Your task to perform on an android device: toggle priority inbox in the gmail app Image 0: 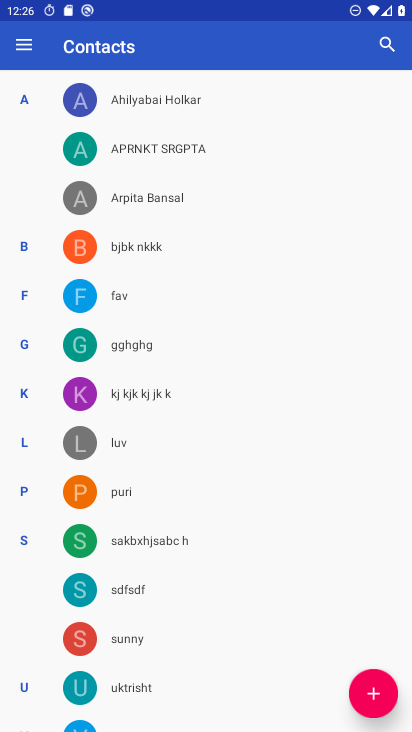
Step 0: press home button
Your task to perform on an android device: toggle priority inbox in the gmail app Image 1: 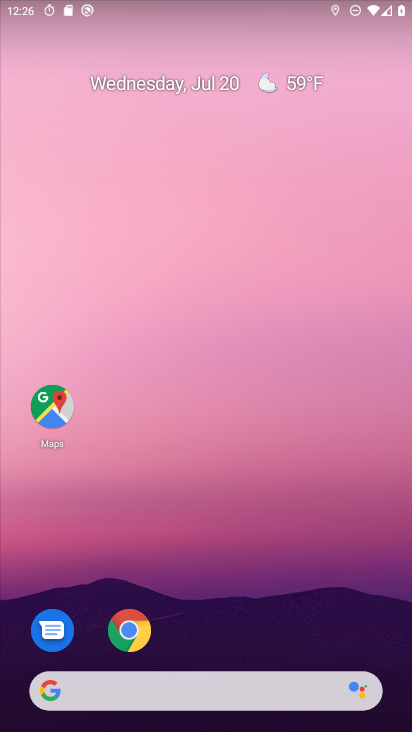
Step 1: drag from (273, 688) to (320, 50)
Your task to perform on an android device: toggle priority inbox in the gmail app Image 2: 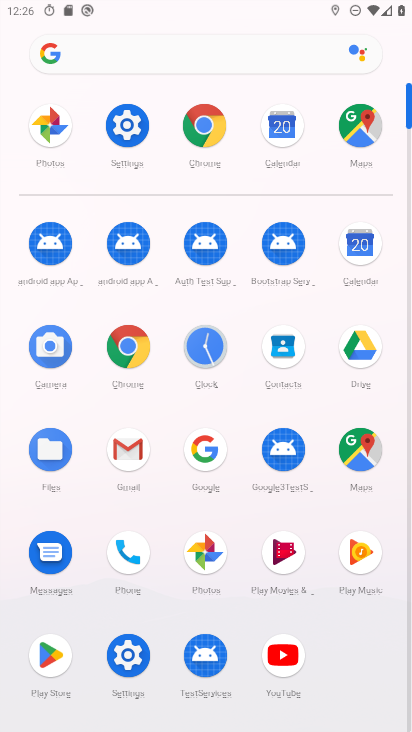
Step 2: click (115, 443)
Your task to perform on an android device: toggle priority inbox in the gmail app Image 3: 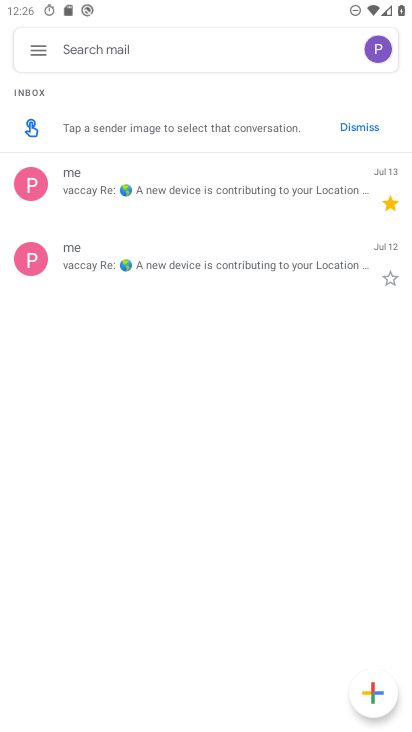
Step 3: click (37, 50)
Your task to perform on an android device: toggle priority inbox in the gmail app Image 4: 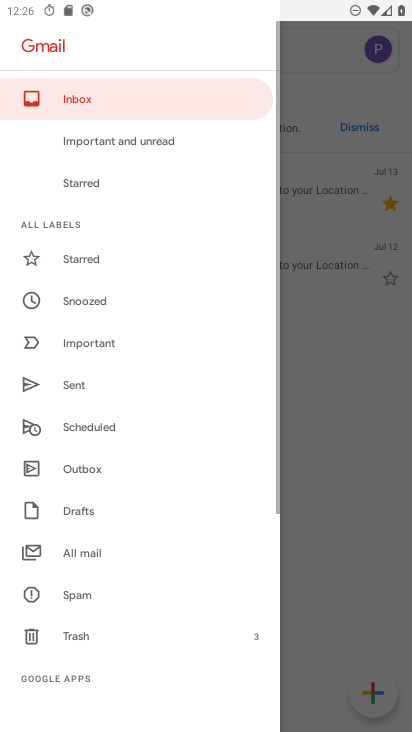
Step 4: drag from (122, 670) to (134, 181)
Your task to perform on an android device: toggle priority inbox in the gmail app Image 5: 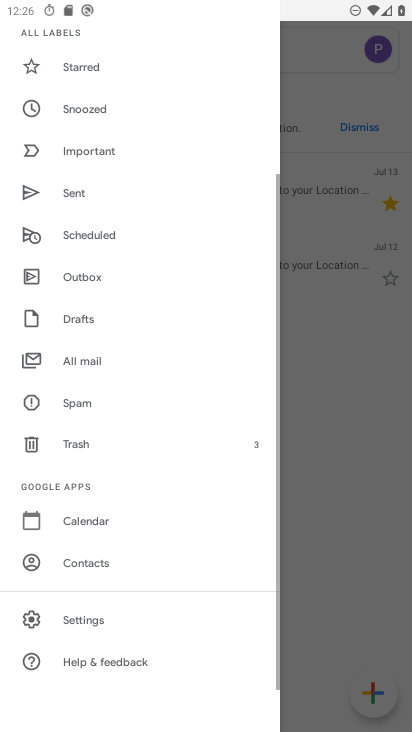
Step 5: click (125, 620)
Your task to perform on an android device: toggle priority inbox in the gmail app Image 6: 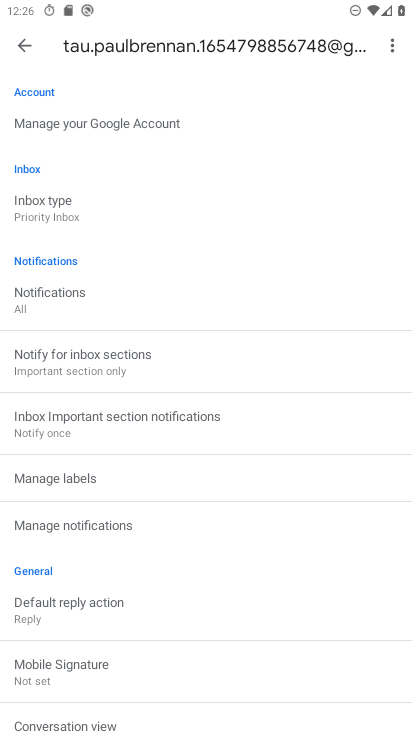
Step 6: click (61, 211)
Your task to perform on an android device: toggle priority inbox in the gmail app Image 7: 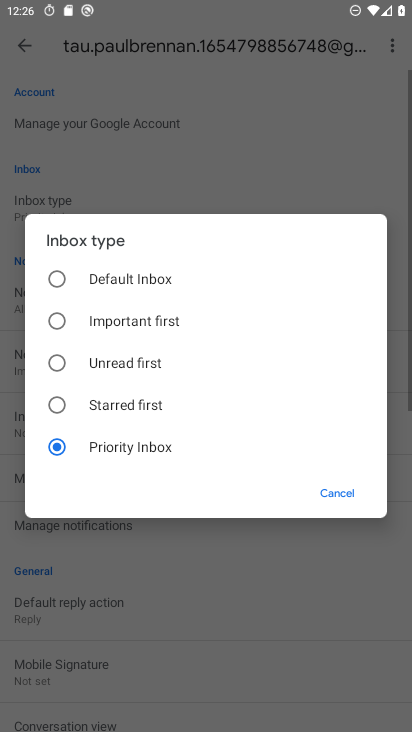
Step 7: click (61, 269)
Your task to perform on an android device: toggle priority inbox in the gmail app Image 8: 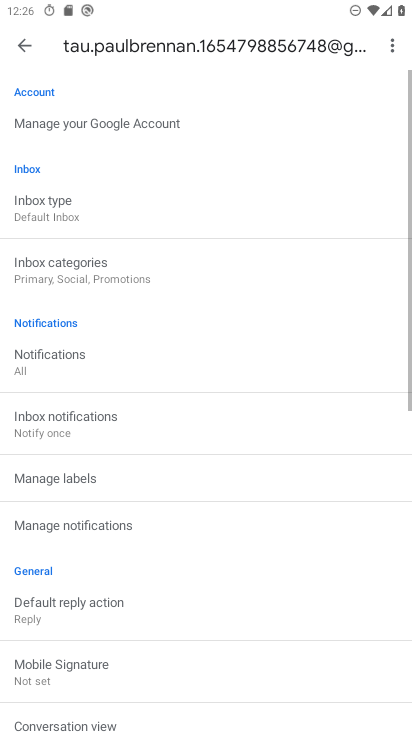
Step 8: task complete